Your task to perform on an android device: change text size in settings app Image 0: 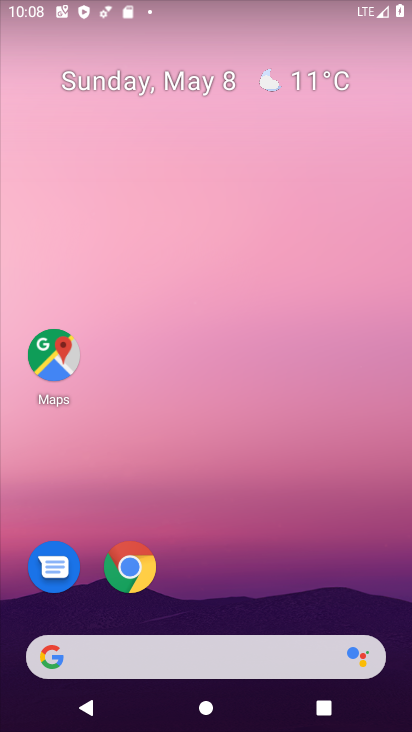
Step 0: drag from (210, 579) to (334, 37)
Your task to perform on an android device: change text size in settings app Image 1: 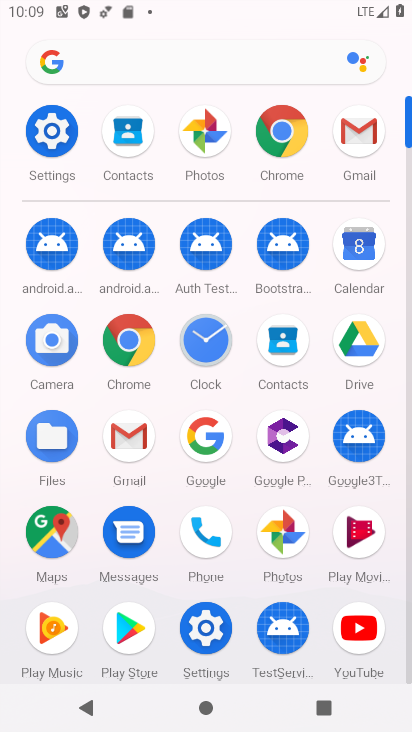
Step 1: click (54, 128)
Your task to perform on an android device: change text size in settings app Image 2: 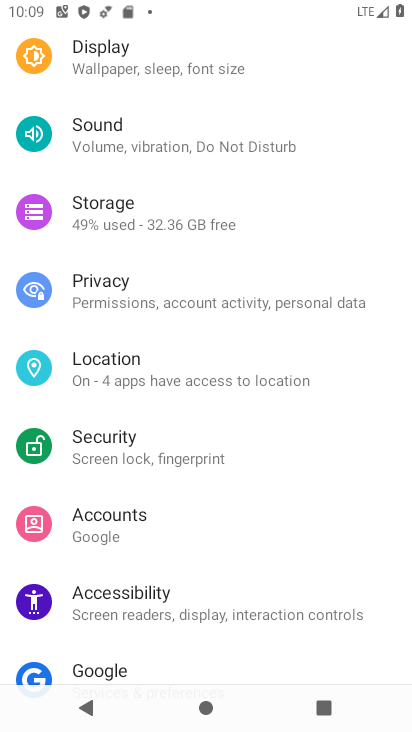
Step 2: drag from (223, 126) to (225, 677)
Your task to perform on an android device: change text size in settings app Image 3: 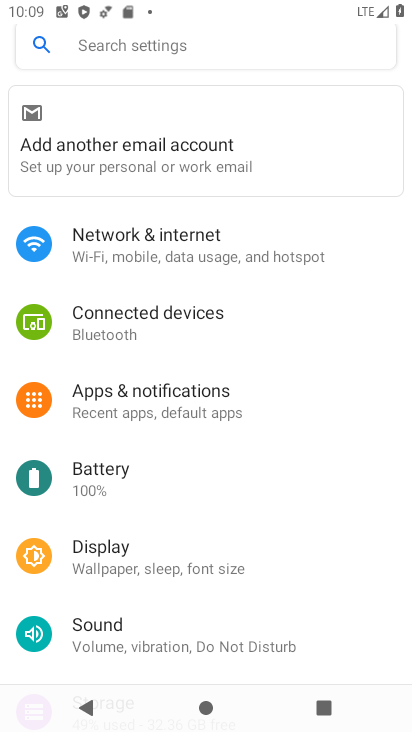
Step 3: click (108, 44)
Your task to perform on an android device: change text size in settings app Image 4: 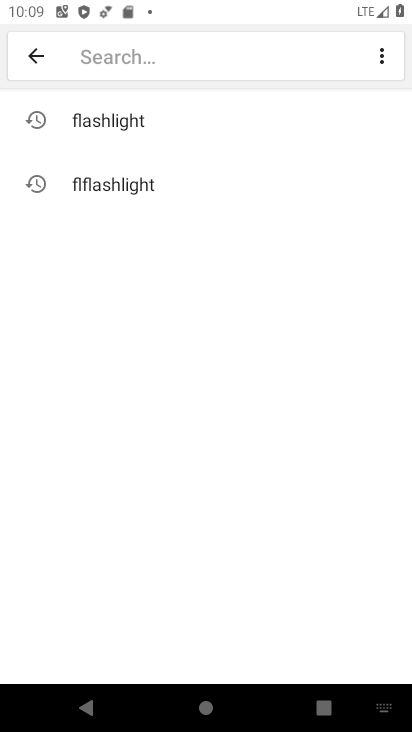
Step 4: type "text size"
Your task to perform on an android device: change text size in settings app Image 5: 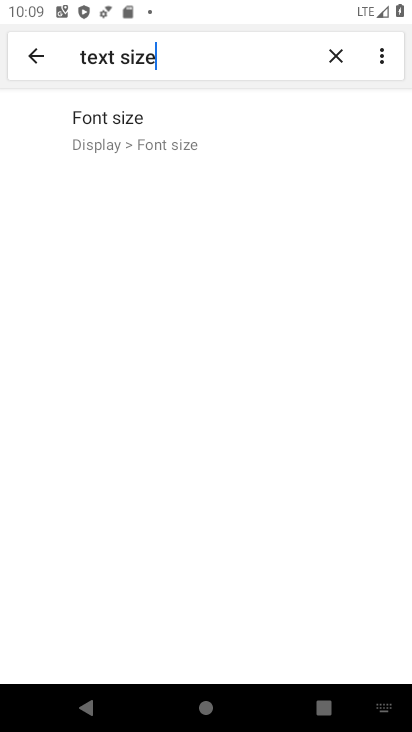
Step 5: click (148, 129)
Your task to perform on an android device: change text size in settings app Image 6: 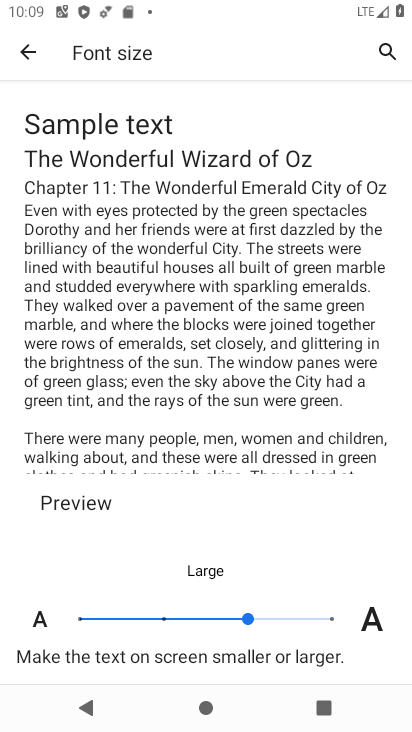
Step 6: task complete